Your task to perform on an android device: all mails in gmail Image 0: 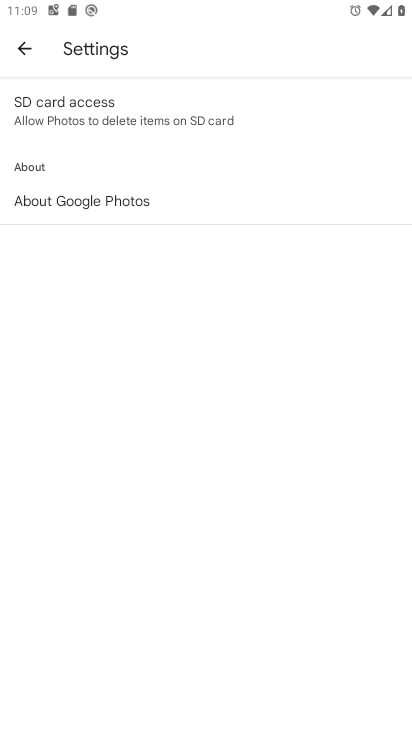
Step 0: press home button
Your task to perform on an android device: all mails in gmail Image 1: 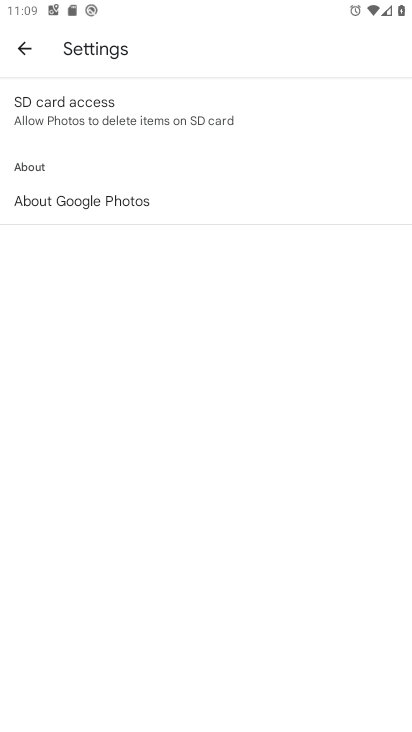
Step 1: drag from (231, 583) to (242, 141)
Your task to perform on an android device: all mails in gmail Image 2: 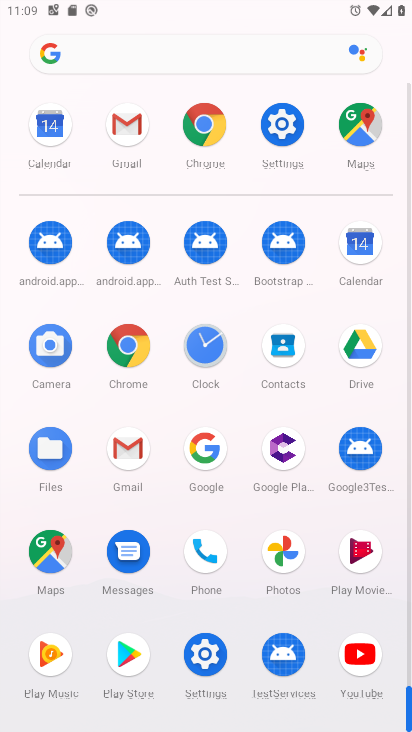
Step 2: click (132, 448)
Your task to perform on an android device: all mails in gmail Image 3: 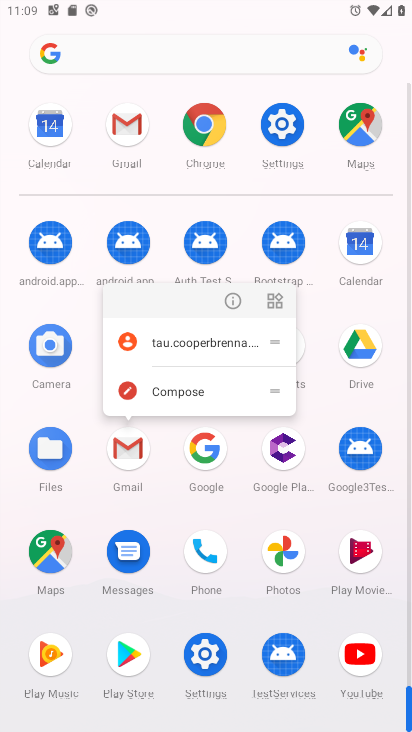
Step 3: click (236, 306)
Your task to perform on an android device: all mails in gmail Image 4: 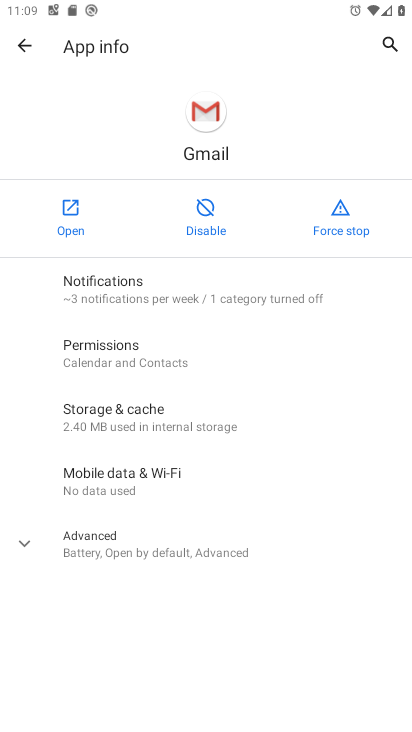
Step 4: click (91, 211)
Your task to perform on an android device: all mails in gmail Image 5: 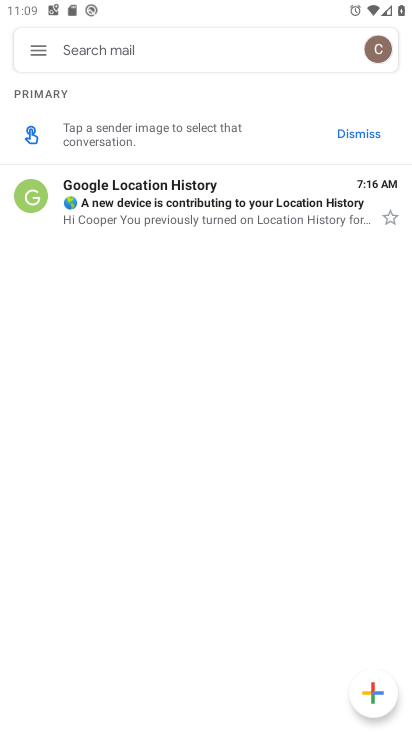
Step 5: click (32, 63)
Your task to perform on an android device: all mails in gmail Image 6: 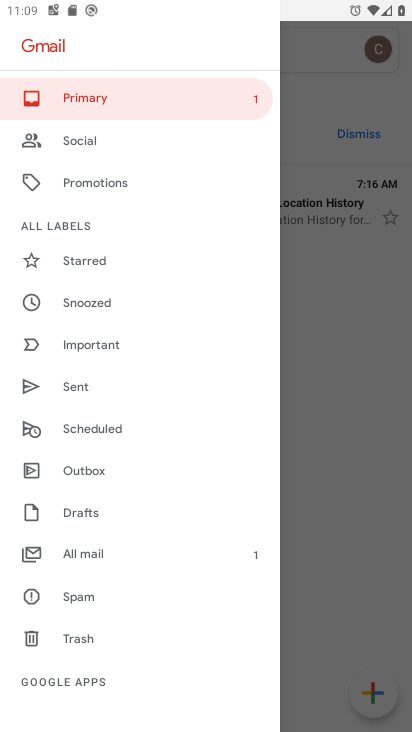
Step 6: click (79, 546)
Your task to perform on an android device: all mails in gmail Image 7: 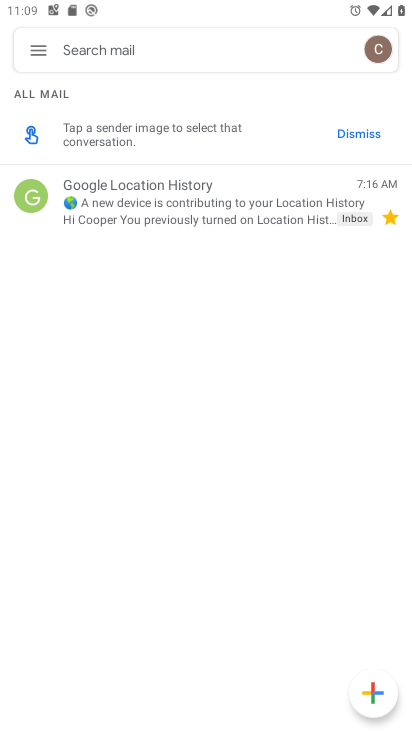
Step 7: task complete